Your task to perform on an android device: Go to network settings Image 0: 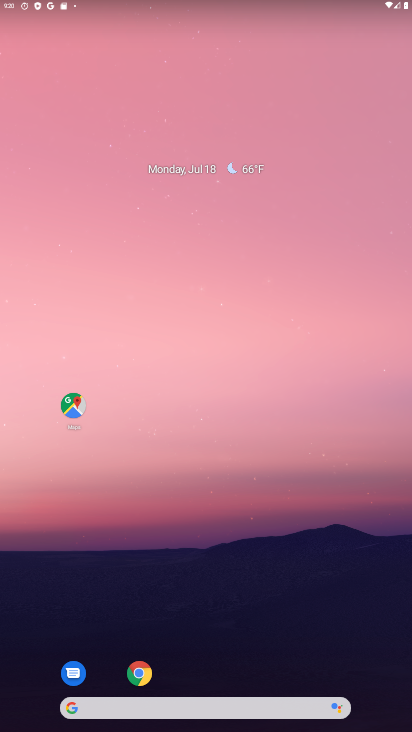
Step 0: drag from (204, 650) to (226, 86)
Your task to perform on an android device: Go to network settings Image 1: 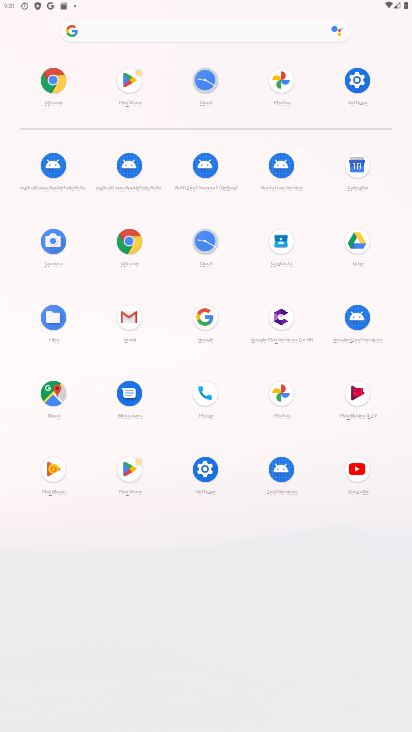
Step 1: click (354, 78)
Your task to perform on an android device: Go to network settings Image 2: 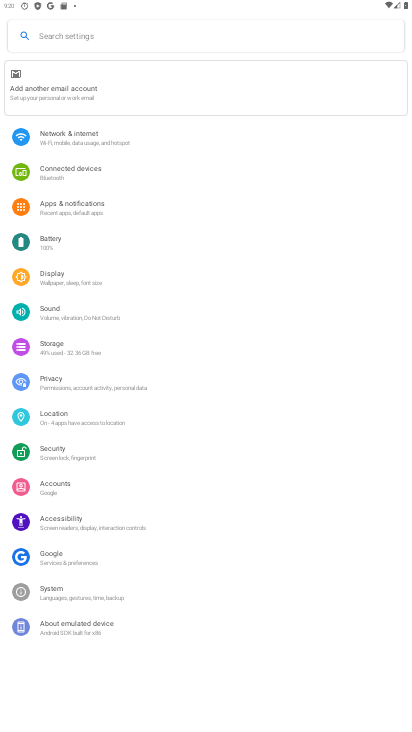
Step 2: click (88, 138)
Your task to perform on an android device: Go to network settings Image 3: 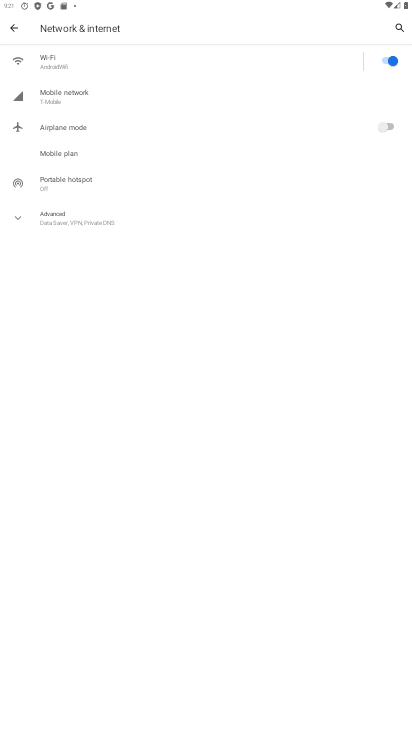
Step 3: click (76, 97)
Your task to perform on an android device: Go to network settings Image 4: 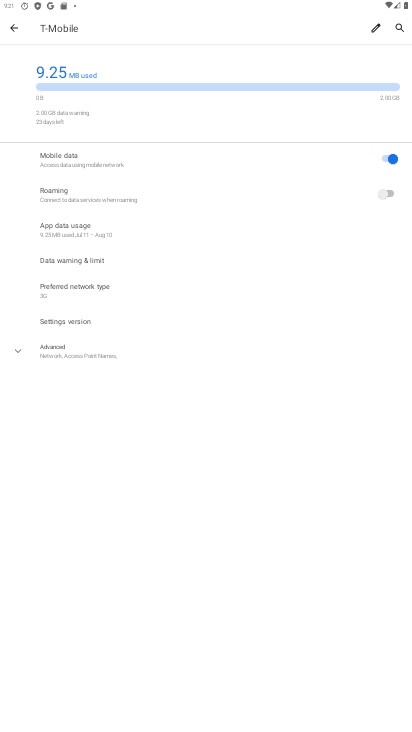
Step 4: task complete